Your task to perform on an android device: Search for razer kraken on amazon.com, select the first entry, and add it to the cart. Image 0: 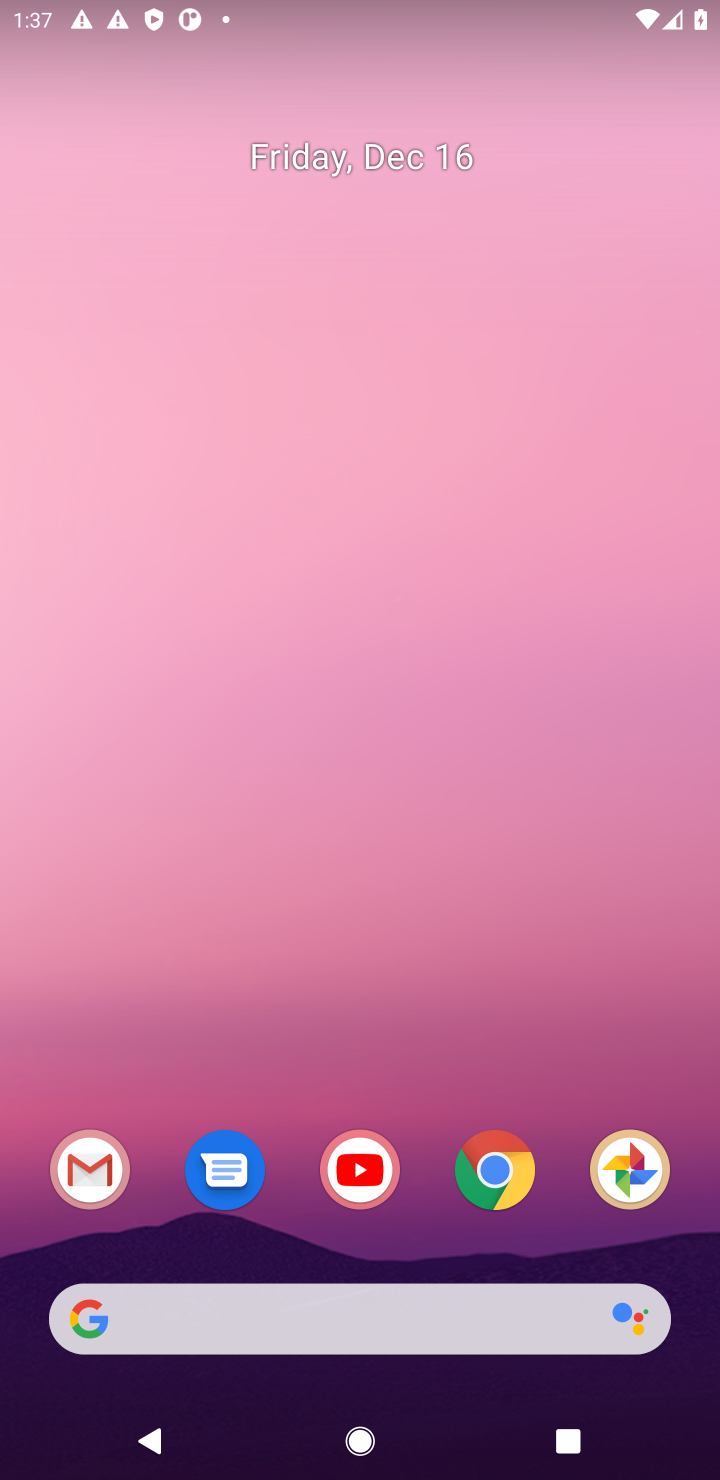
Step 0: click (490, 1166)
Your task to perform on an android device: Search for razer kraken on amazon.com, select the first entry, and add it to the cart. Image 1: 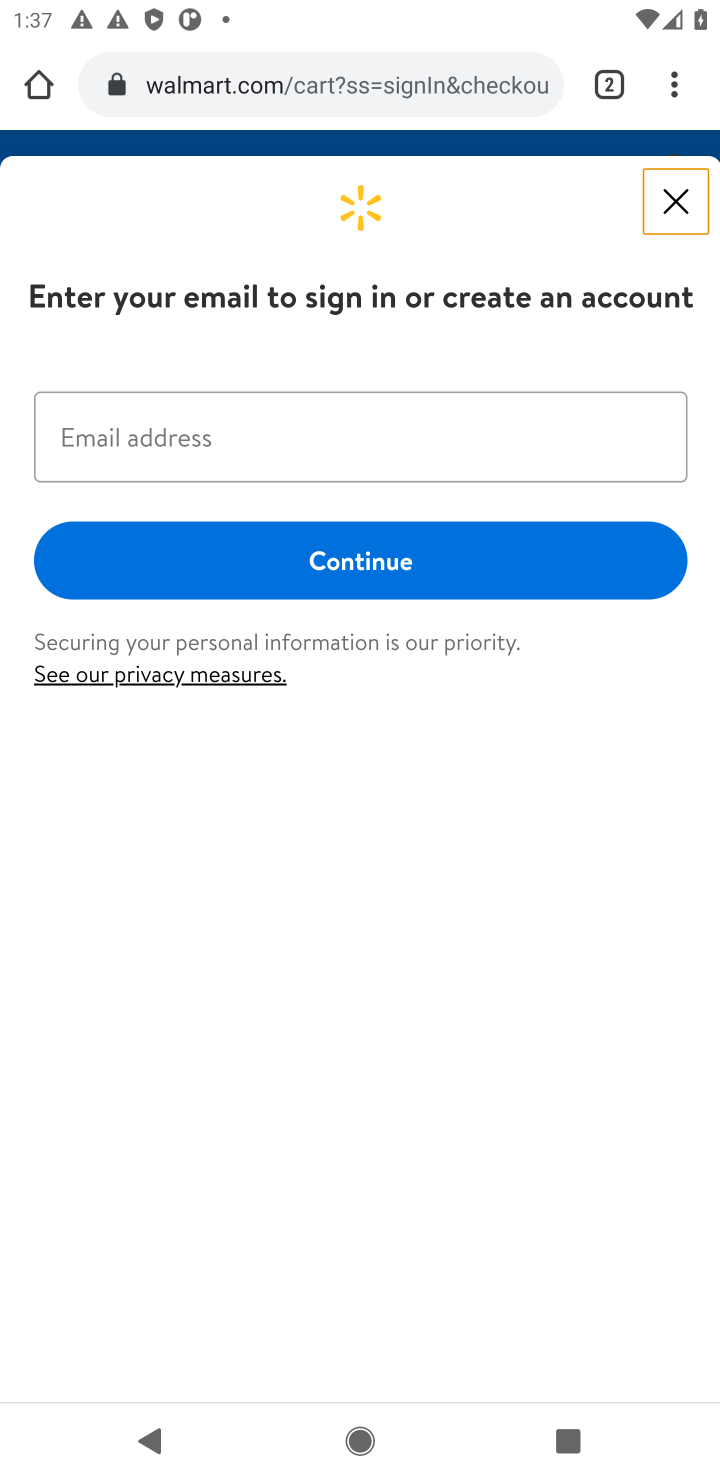
Step 1: click (252, 78)
Your task to perform on an android device: Search for razer kraken on amazon.com, select the first entry, and add it to the cart. Image 2: 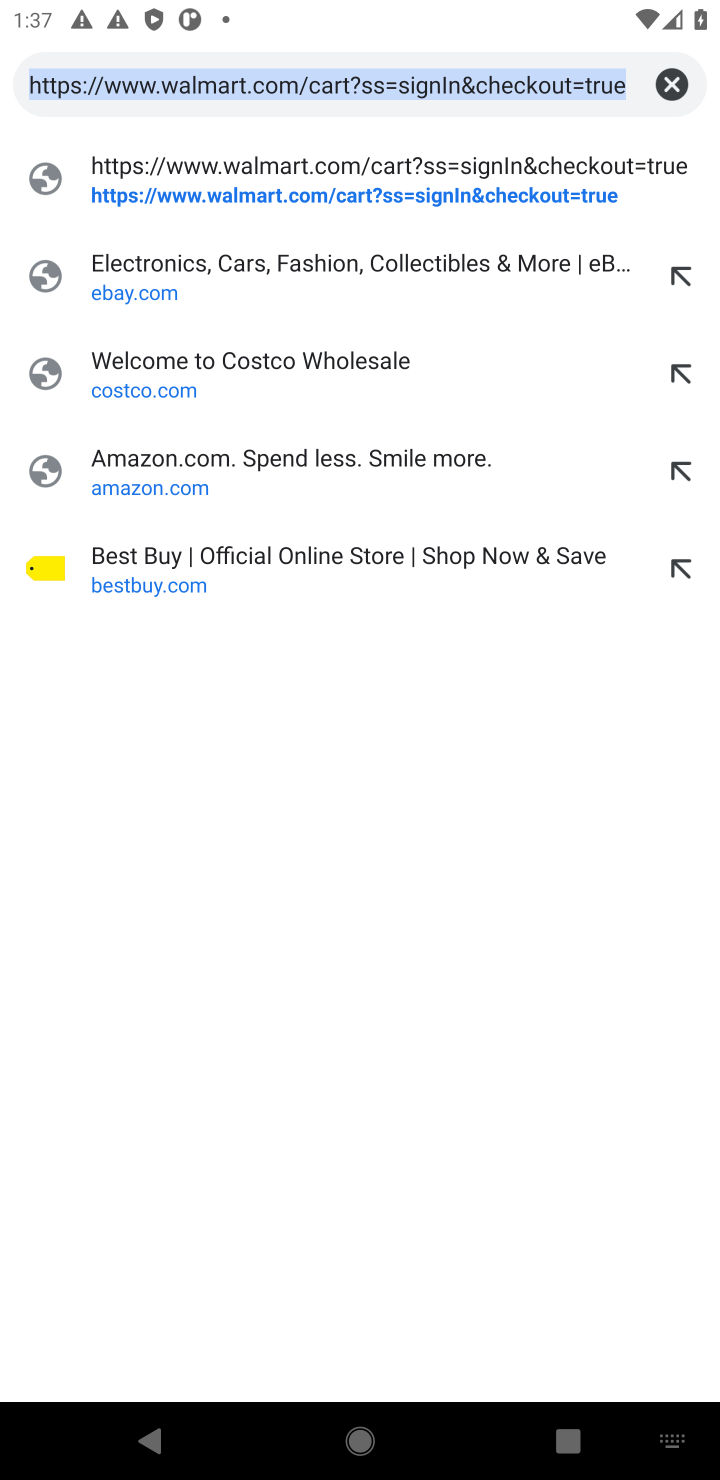
Step 2: click (118, 488)
Your task to perform on an android device: Search for razer kraken on amazon.com, select the first entry, and add it to the cart. Image 3: 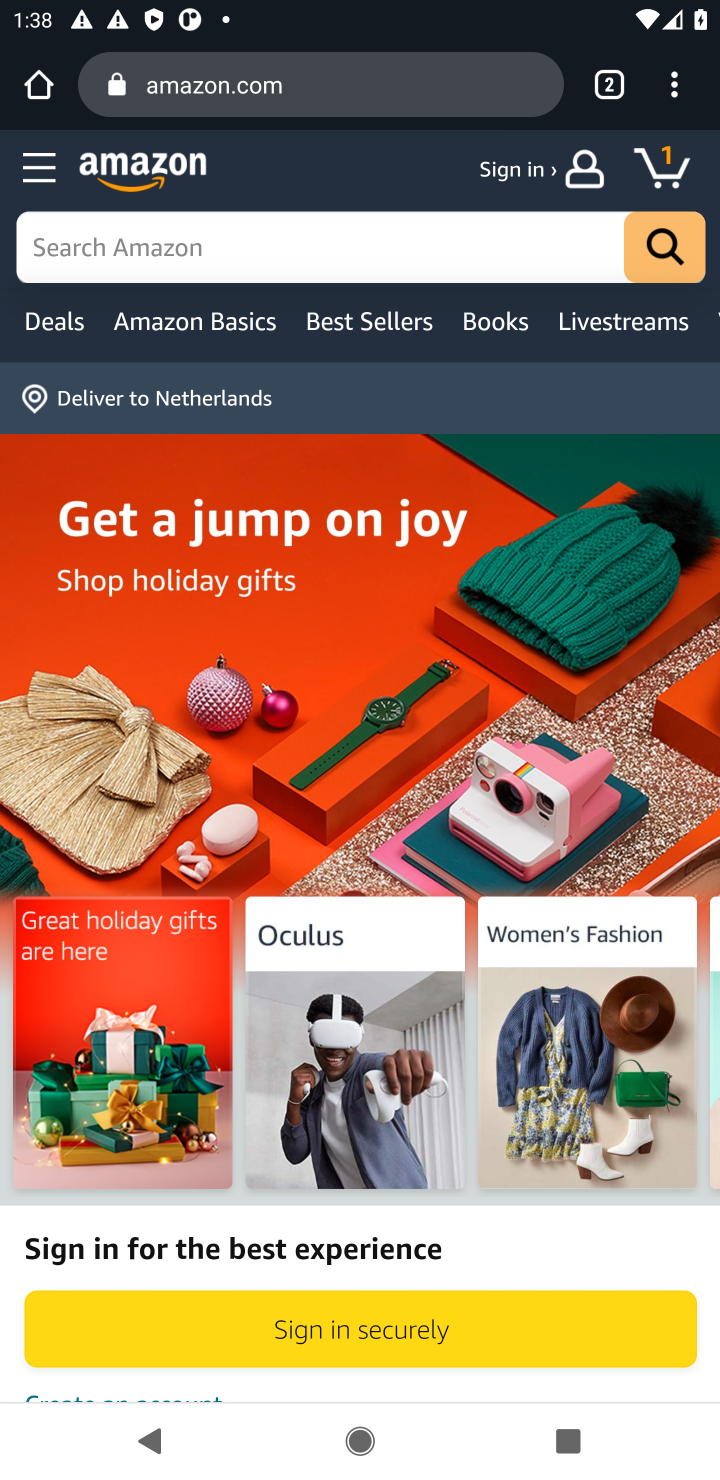
Step 3: click (135, 256)
Your task to perform on an android device: Search for razer kraken on amazon.com, select the first entry, and add it to the cart. Image 4: 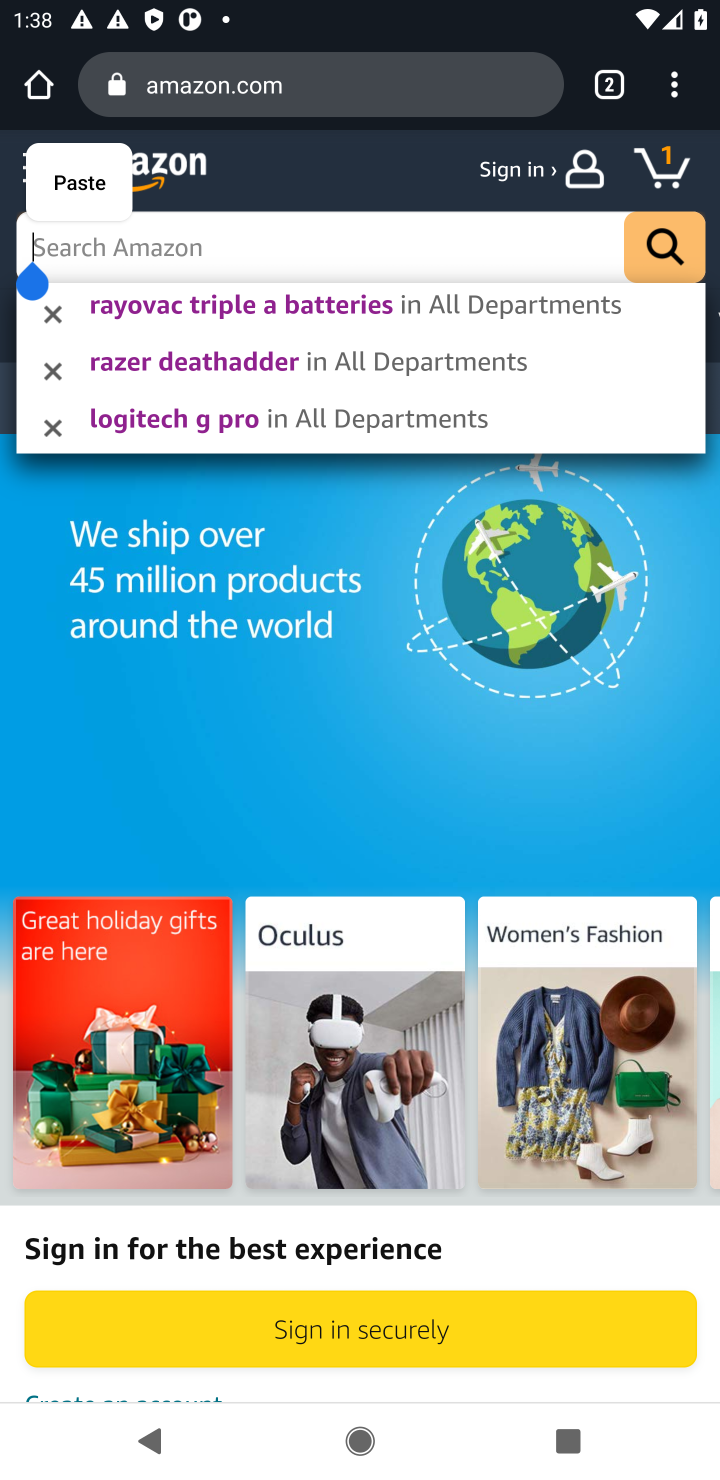
Step 4: type "razer kraken"
Your task to perform on an android device: Search for razer kraken on amazon.com, select the first entry, and add it to the cart. Image 5: 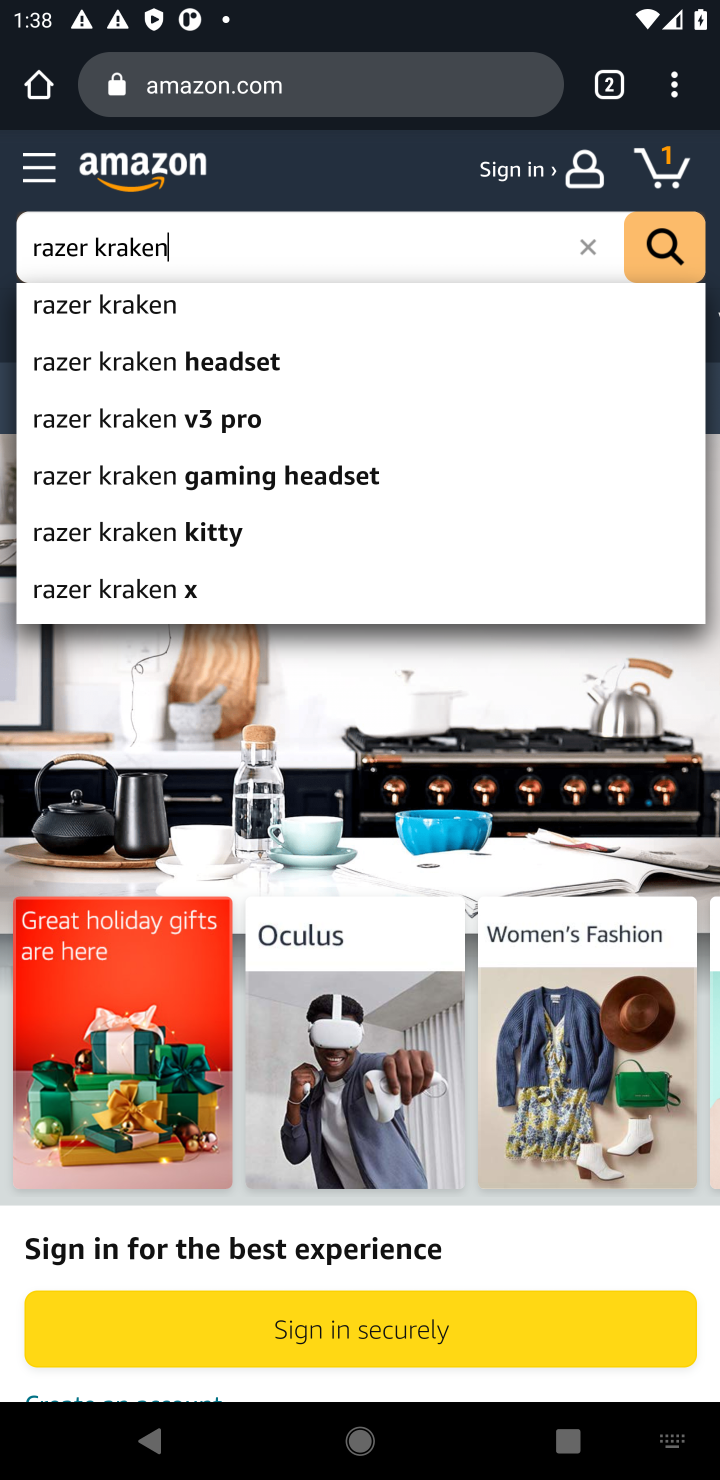
Step 5: click (123, 309)
Your task to perform on an android device: Search for razer kraken on amazon.com, select the first entry, and add it to the cart. Image 6: 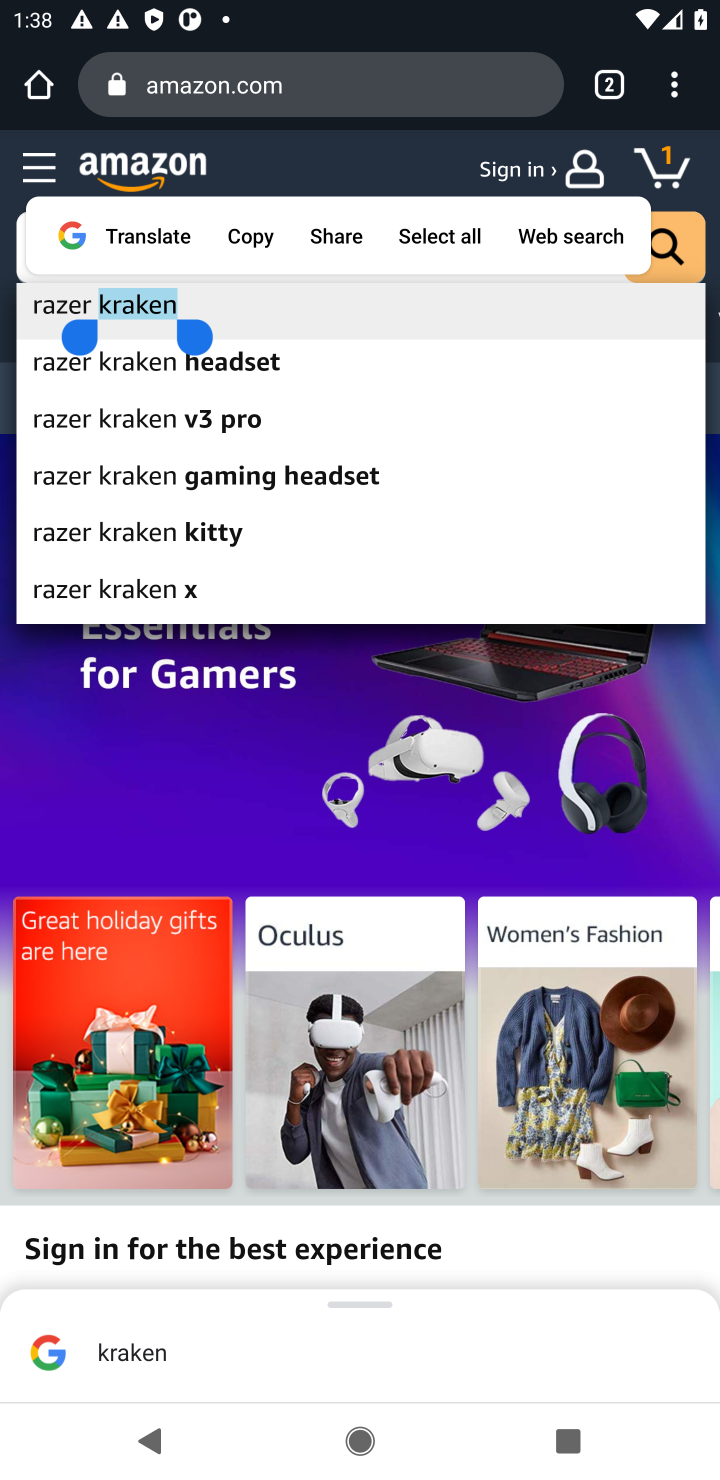
Step 6: click (56, 316)
Your task to perform on an android device: Search for razer kraken on amazon.com, select the first entry, and add it to the cart. Image 7: 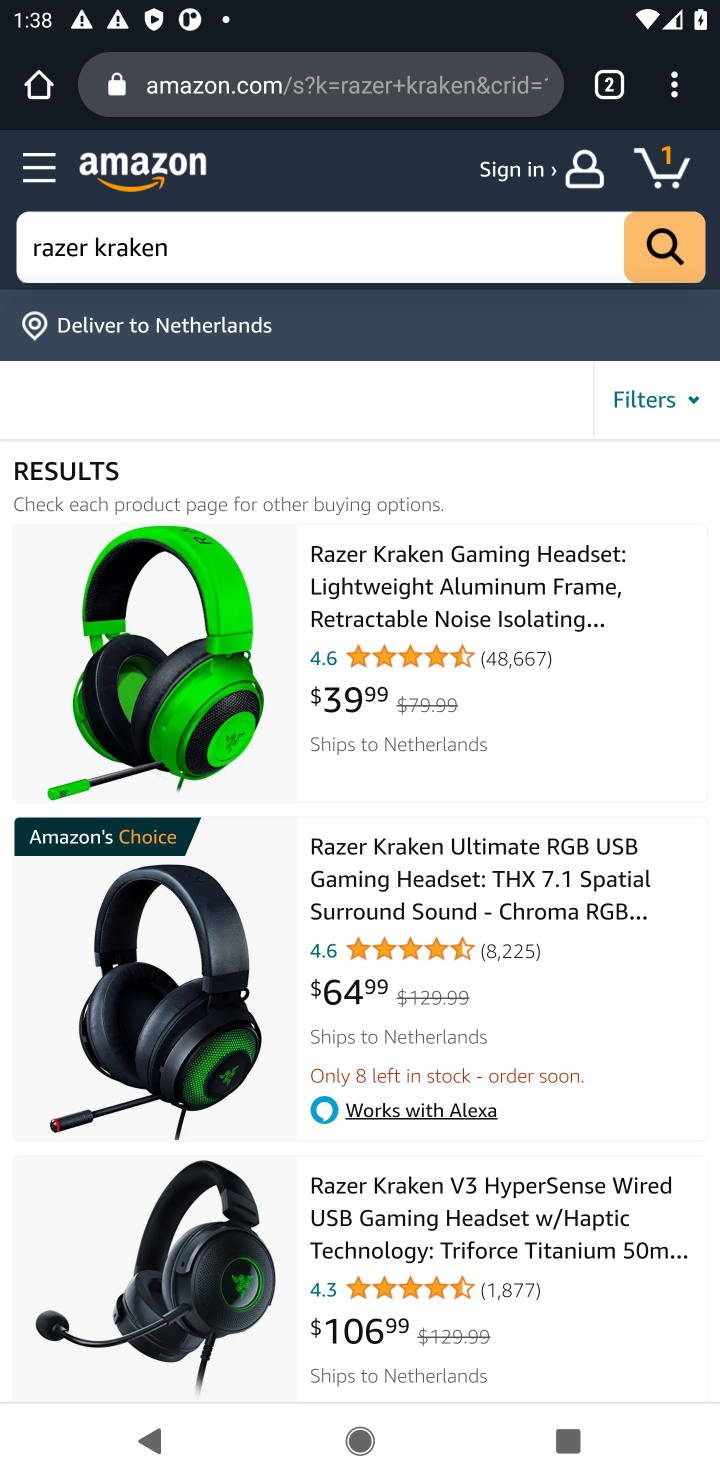
Step 7: click (398, 594)
Your task to perform on an android device: Search for razer kraken on amazon.com, select the first entry, and add it to the cart. Image 8: 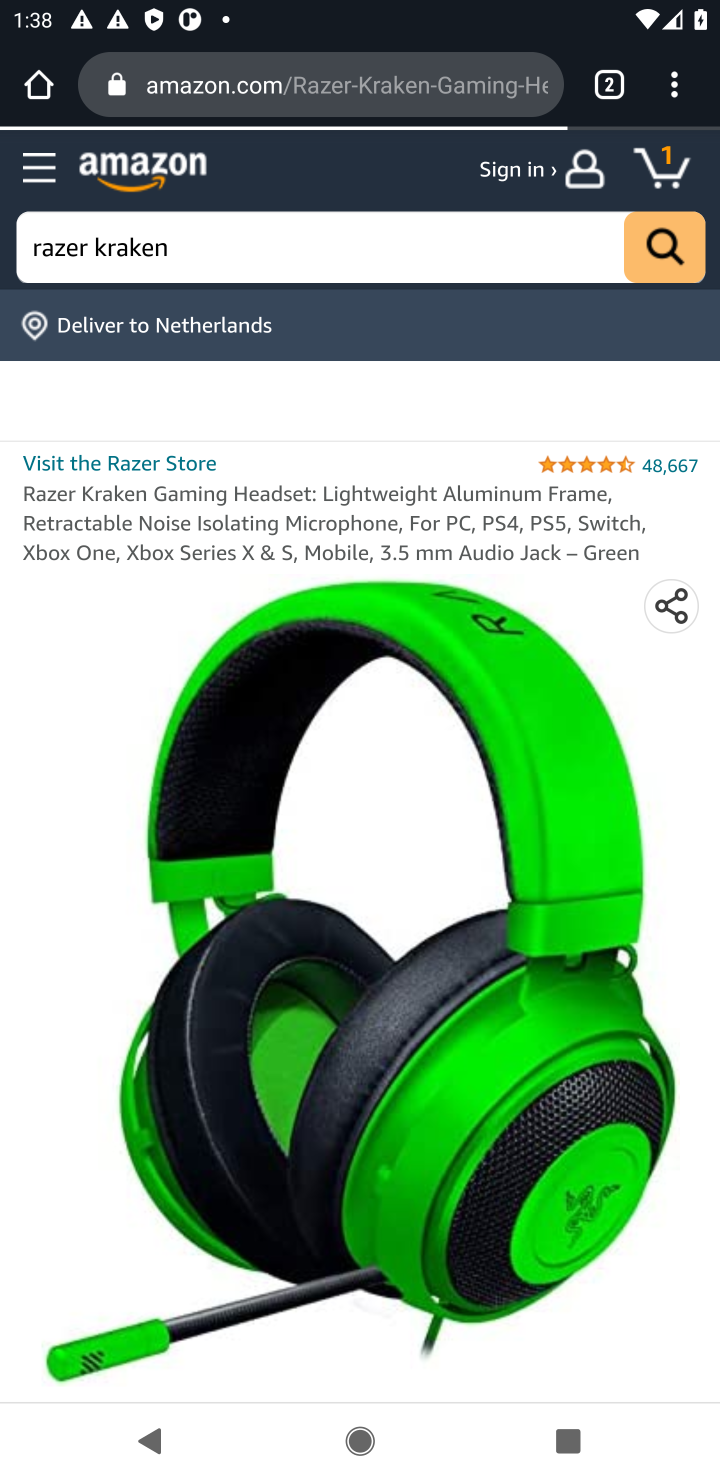
Step 8: drag from (362, 1172) to (330, 565)
Your task to perform on an android device: Search for razer kraken on amazon.com, select the first entry, and add it to the cart. Image 9: 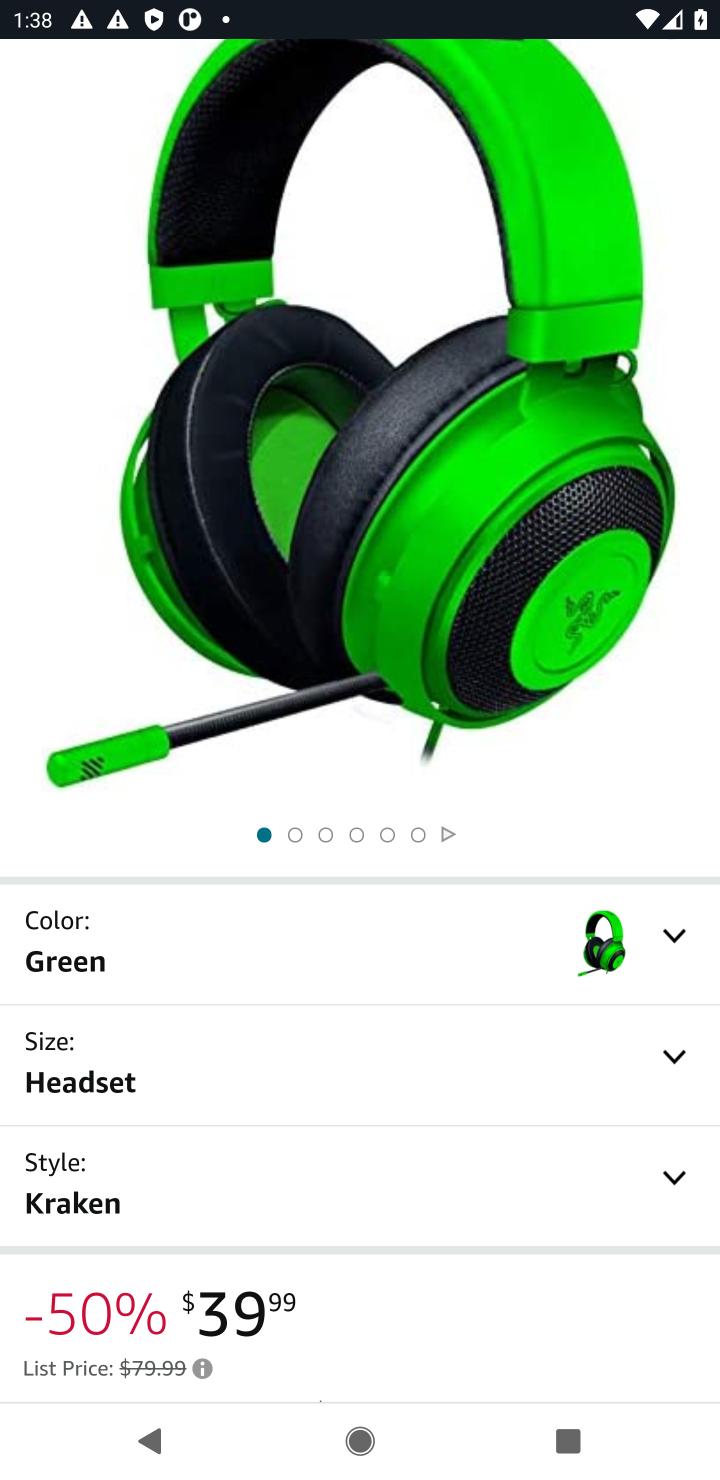
Step 9: drag from (271, 804) to (253, 478)
Your task to perform on an android device: Search for razer kraken on amazon.com, select the first entry, and add it to the cart. Image 10: 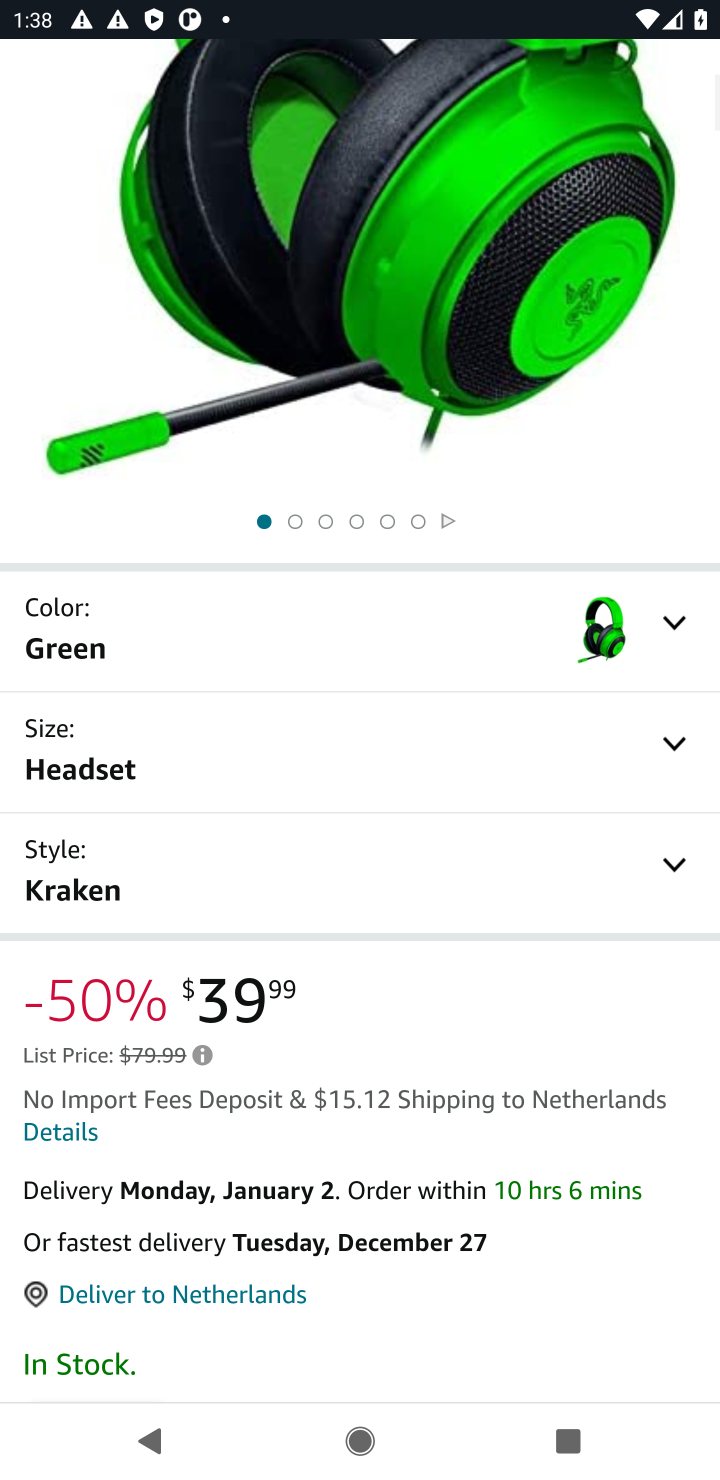
Step 10: drag from (336, 1066) to (336, 476)
Your task to perform on an android device: Search for razer kraken on amazon.com, select the first entry, and add it to the cart. Image 11: 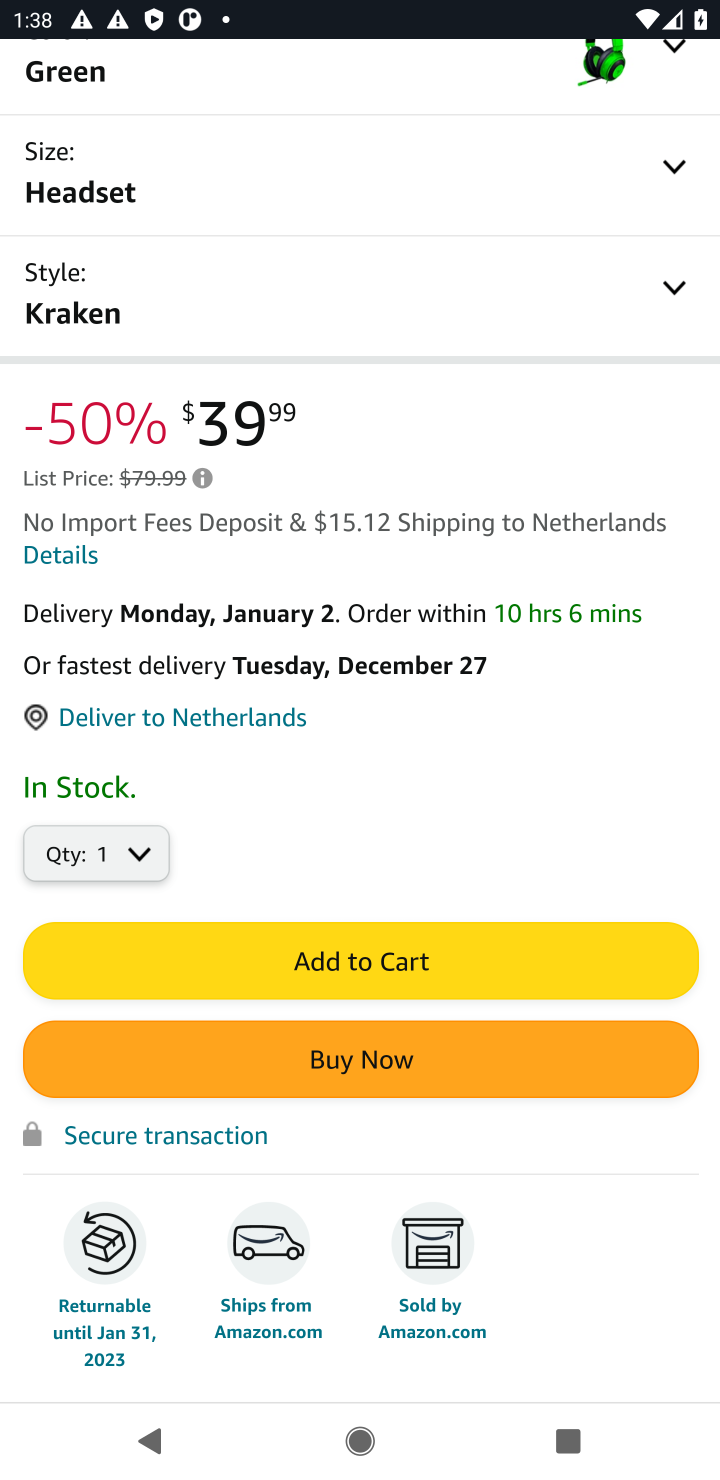
Step 11: click (351, 951)
Your task to perform on an android device: Search for razer kraken on amazon.com, select the first entry, and add it to the cart. Image 12: 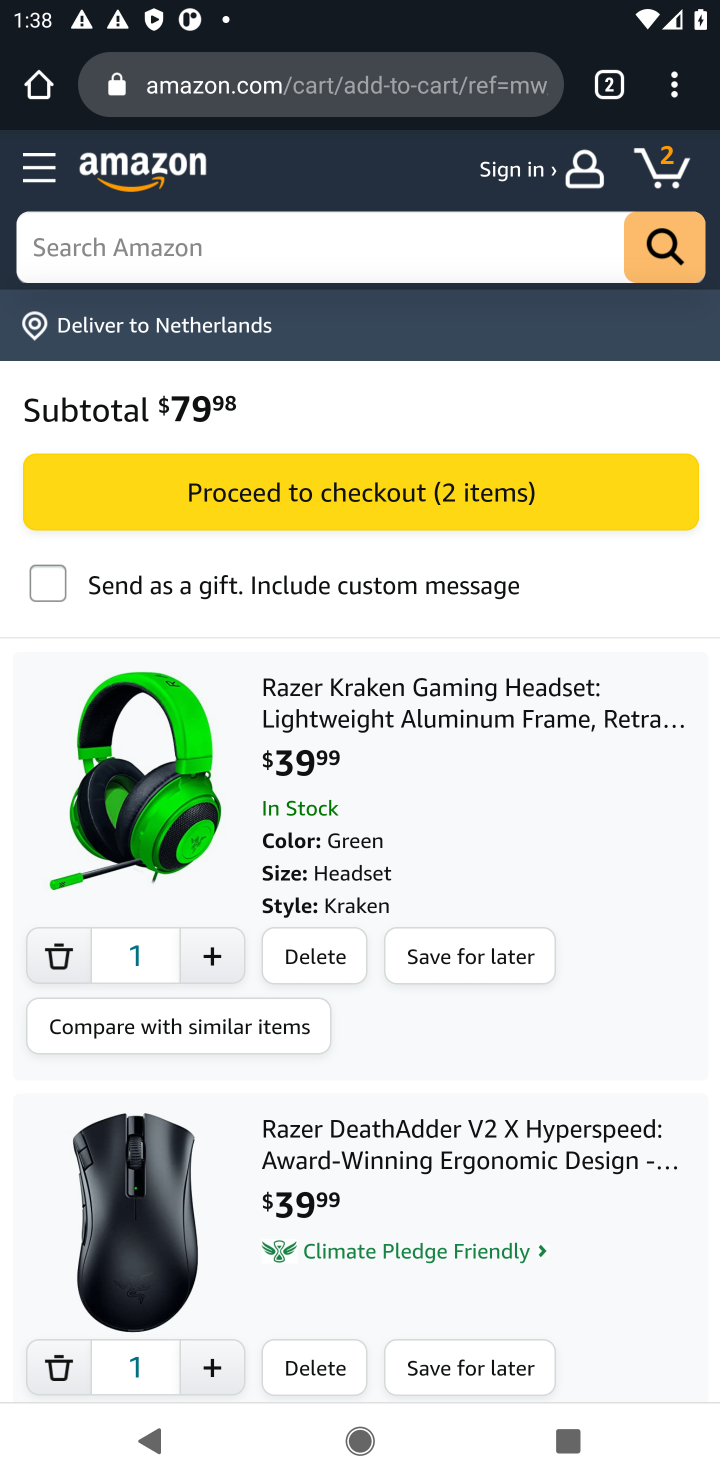
Step 12: task complete